Your task to perform on an android device: turn off notifications in google photos Image 0: 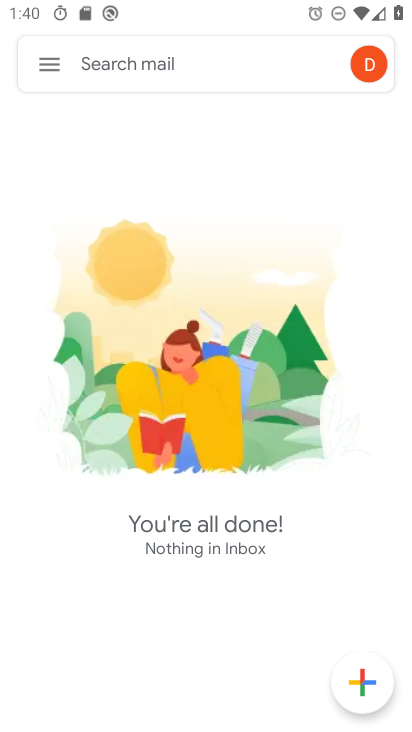
Step 0: press home button
Your task to perform on an android device: turn off notifications in google photos Image 1: 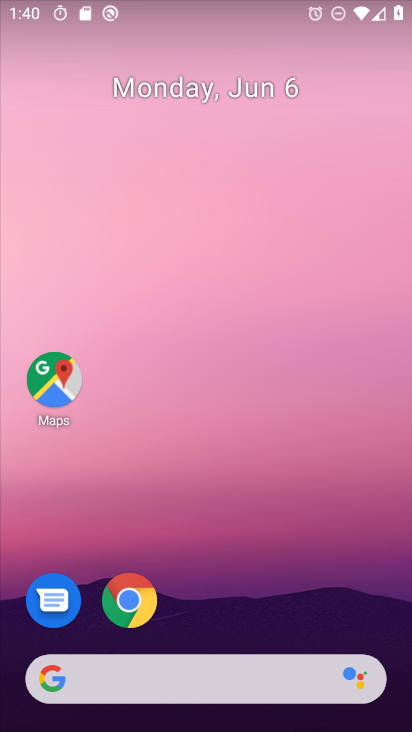
Step 1: drag from (216, 612) to (229, 208)
Your task to perform on an android device: turn off notifications in google photos Image 2: 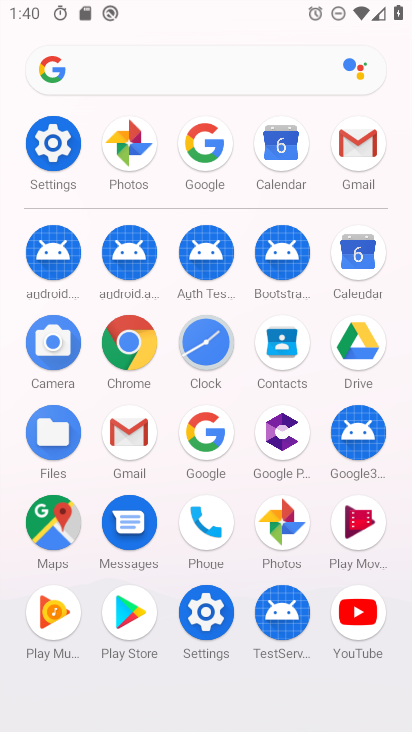
Step 2: click (141, 156)
Your task to perform on an android device: turn off notifications in google photos Image 3: 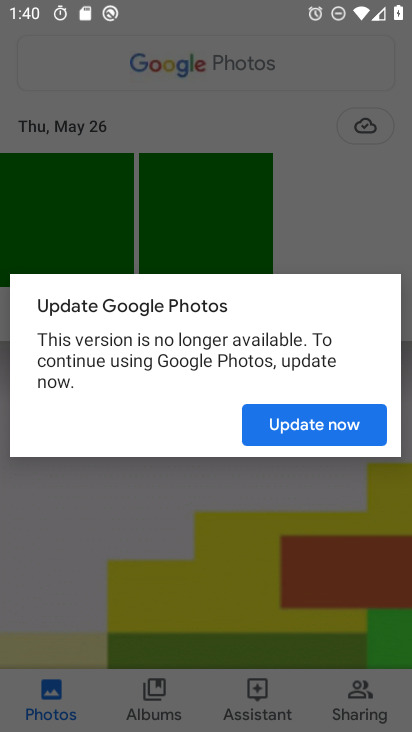
Step 3: click (282, 424)
Your task to perform on an android device: turn off notifications in google photos Image 4: 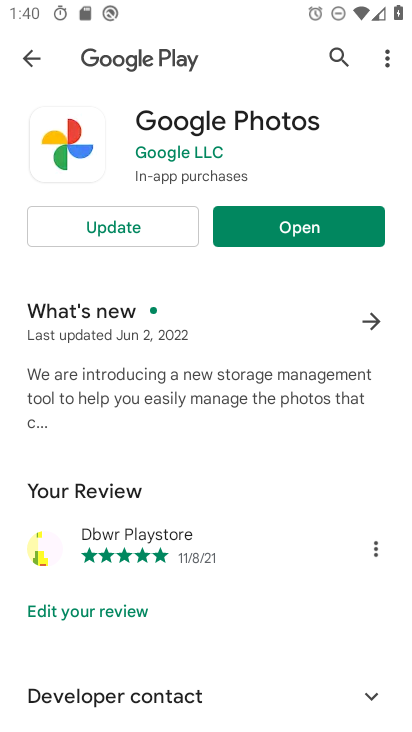
Step 4: click (266, 224)
Your task to perform on an android device: turn off notifications in google photos Image 5: 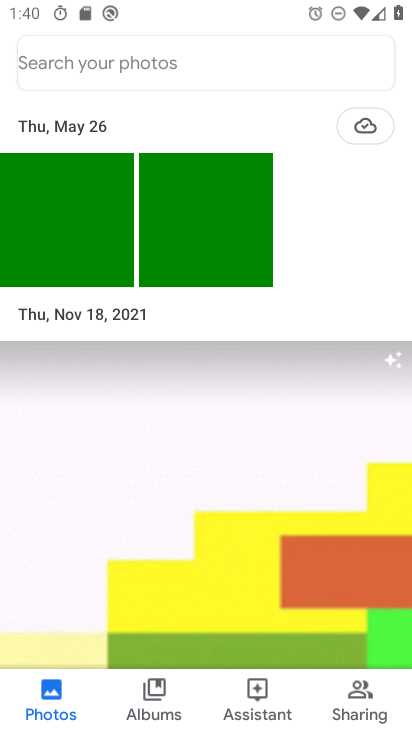
Step 5: drag from (244, 143) to (293, 500)
Your task to perform on an android device: turn off notifications in google photos Image 6: 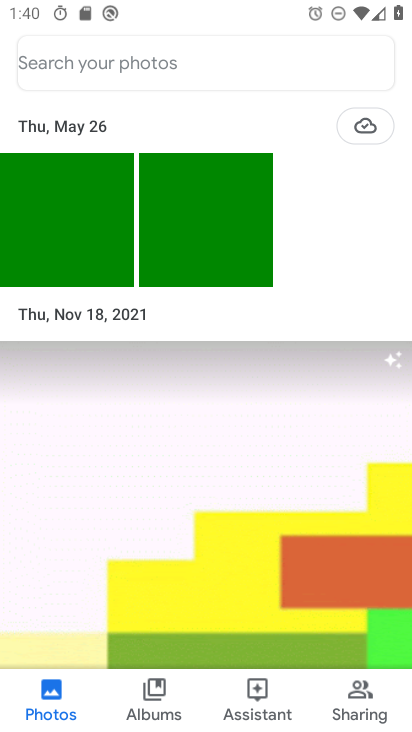
Step 6: click (20, 56)
Your task to perform on an android device: turn off notifications in google photos Image 7: 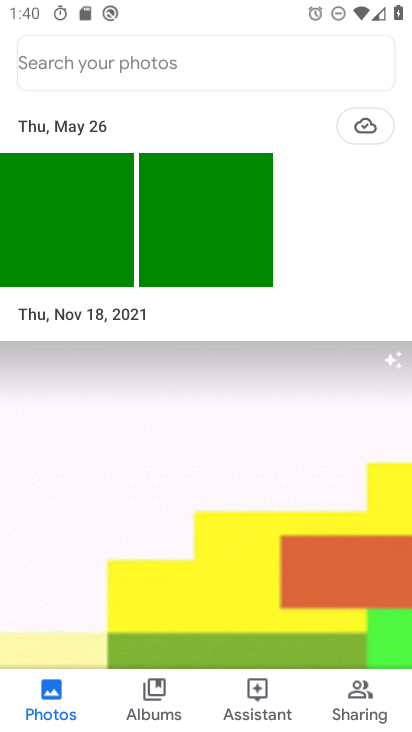
Step 7: click (20, 56)
Your task to perform on an android device: turn off notifications in google photos Image 8: 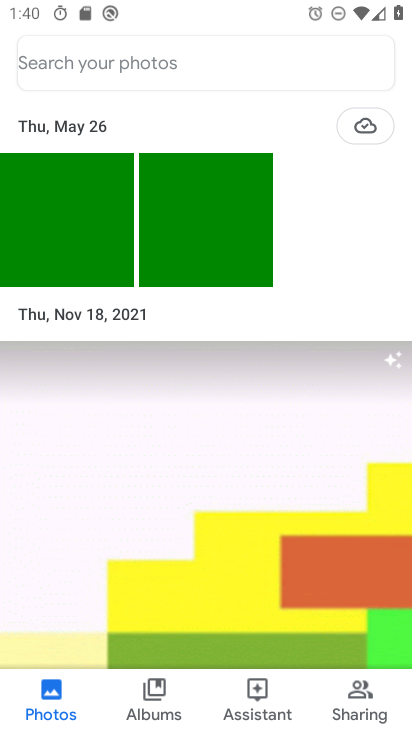
Step 8: click (20, 56)
Your task to perform on an android device: turn off notifications in google photos Image 9: 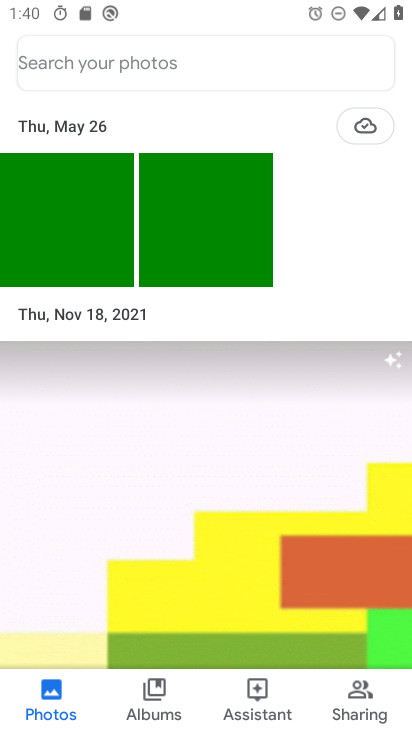
Step 9: click (20, 56)
Your task to perform on an android device: turn off notifications in google photos Image 10: 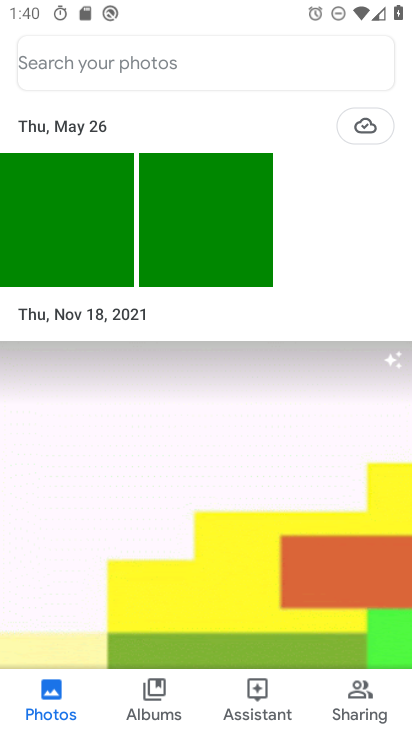
Step 10: click (20, 56)
Your task to perform on an android device: turn off notifications in google photos Image 11: 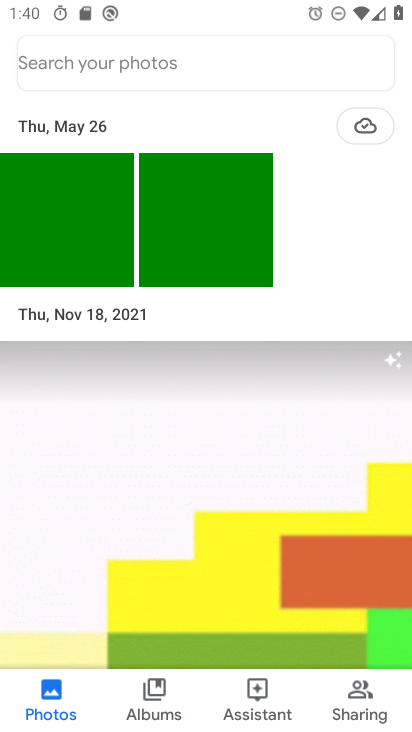
Step 11: click (30, 60)
Your task to perform on an android device: turn off notifications in google photos Image 12: 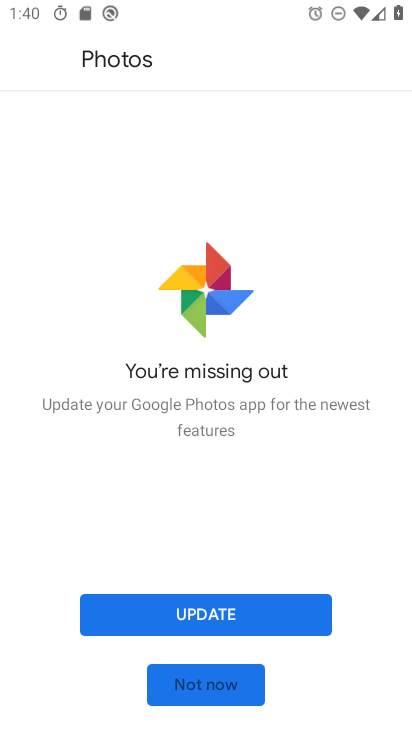
Step 12: click (190, 690)
Your task to perform on an android device: turn off notifications in google photos Image 13: 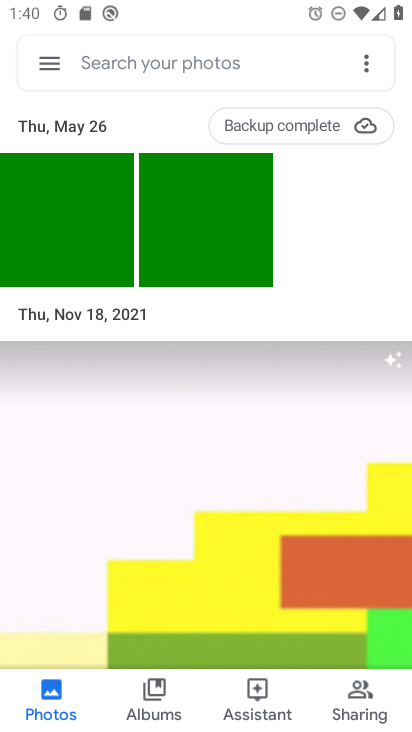
Step 13: click (46, 63)
Your task to perform on an android device: turn off notifications in google photos Image 14: 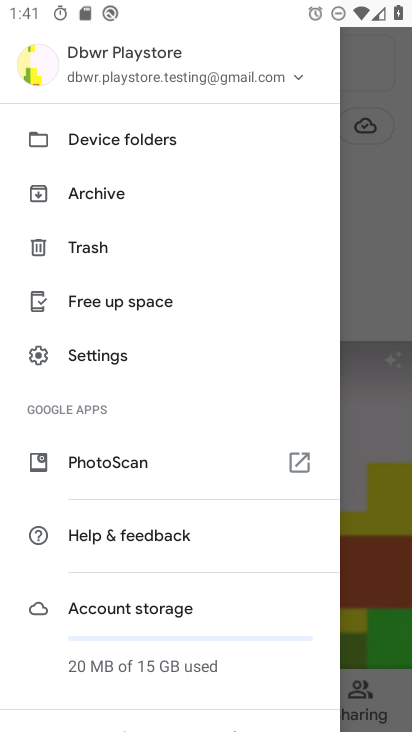
Step 14: click (101, 347)
Your task to perform on an android device: turn off notifications in google photos Image 15: 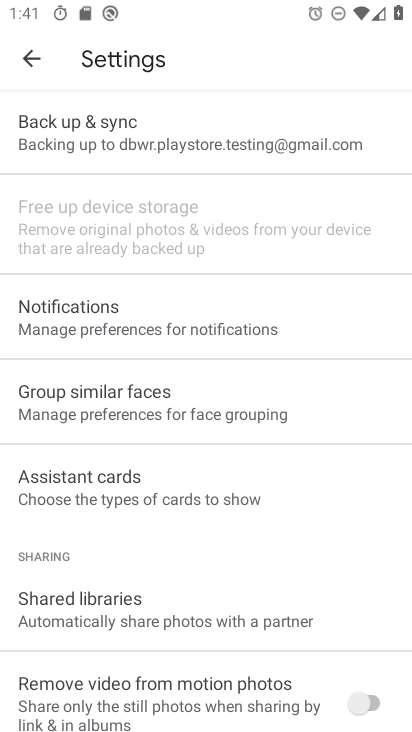
Step 15: click (159, 324)
Your task to perform on an android device: turn off notifications in google photos Image 16: 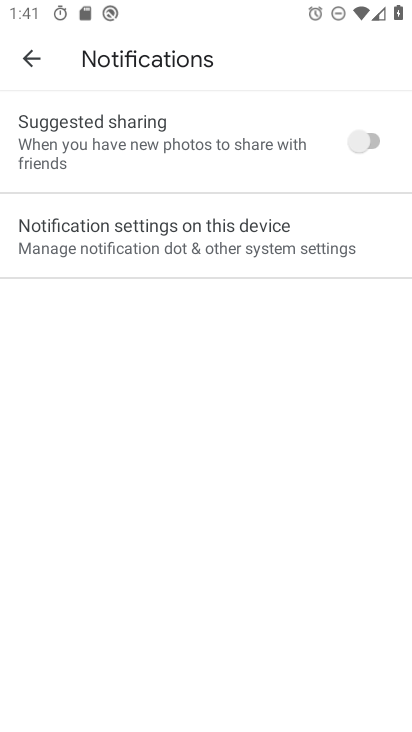
Step 16: click (205, 247)
Your task to perform on an android device: turn off notifications in google photos Image 17: 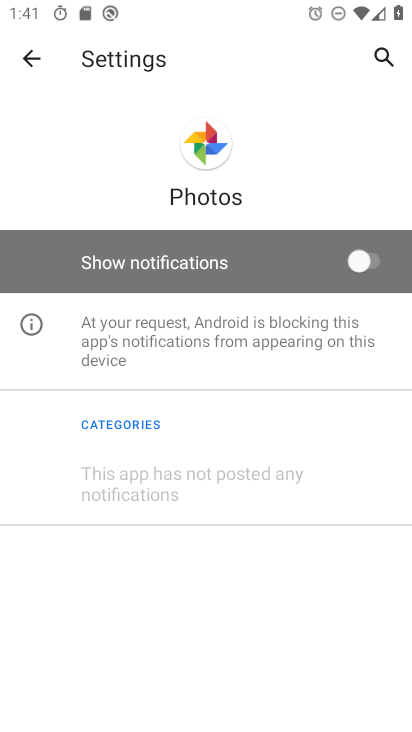
Step 17: task complete